Your task to perform on an android device: Search for Italian restaurants on Maps Image 0: 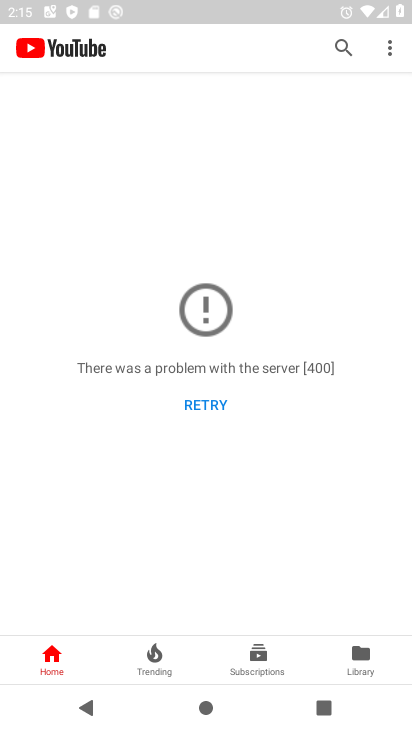
Step 0: press home button
Your task to perform on an android device: Search for Italian restaurants on Maps Image 1: 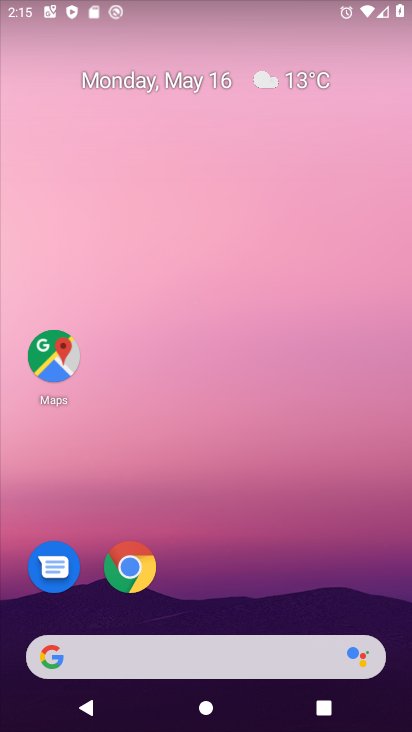
Step 1: click (36, 362)
Your task to perform on an android device: Search for Italian restaurants on Maps Image 2: 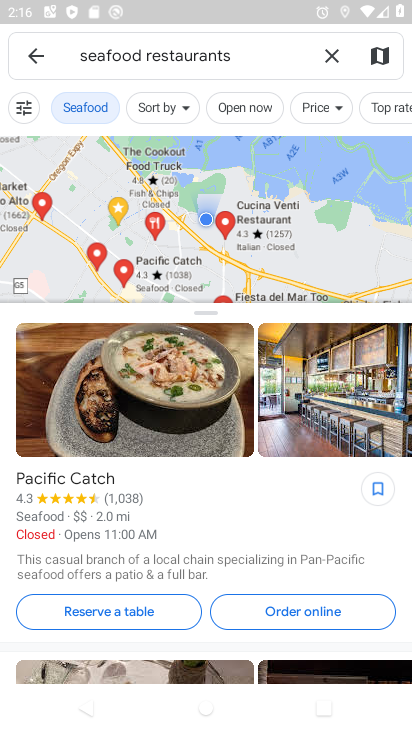
Step 2: click (326, 56)
Your task to perform on an android device: Search for Italian restaurants on Maps Image 3: 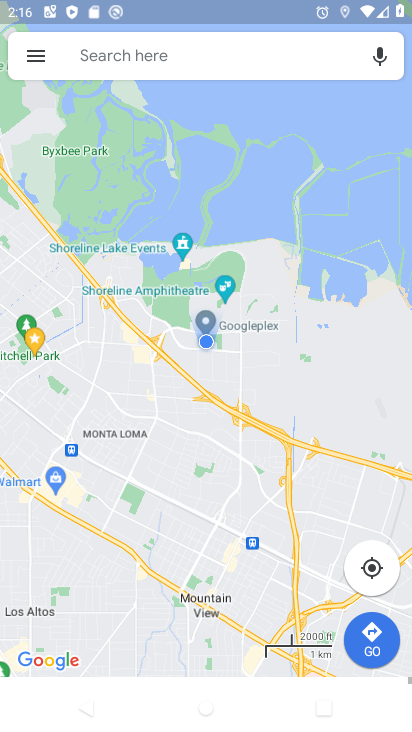
Step 3: click (151, 44)
Your task to perform on an android device: Search for Italian restaurants on Maps Image 4: 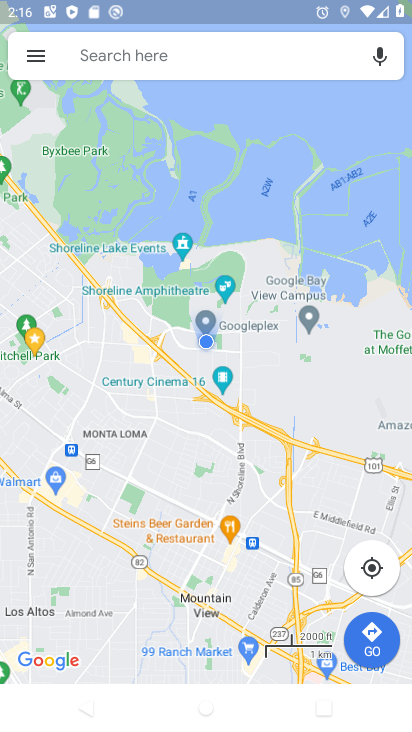
Step 4: click (151, 44)
Your task to perform on an android device: Search for Italian restaurants on Maps Image 5: 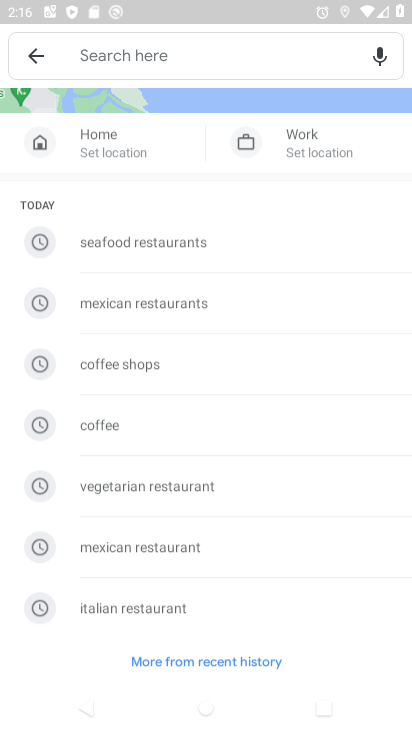
Step 5: click (151, 44)
Your task to perform on an android device: Search for Italian restaurants on Maps Image 6: 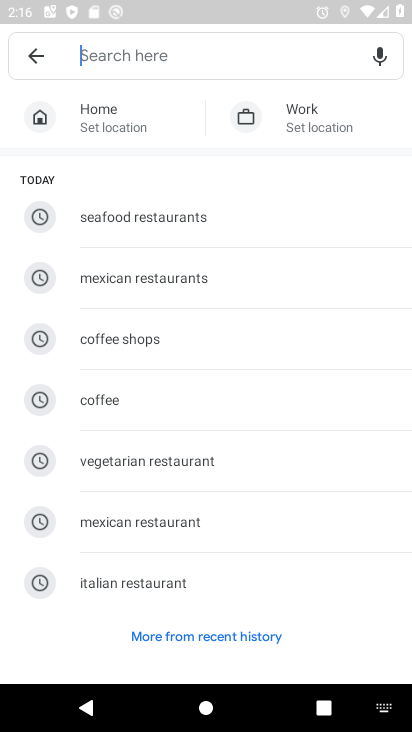
Step 6: click (151, 44)
Your task to perform on an android device: Search for Italian restaurants on Maps Image 7: 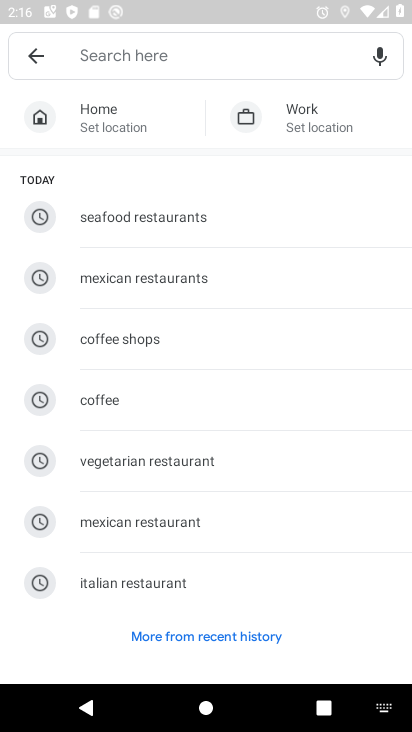
Step 7: click (151, 44)
Your task to perform on an android device: Search for Italian restaurants on Maps Image 8: 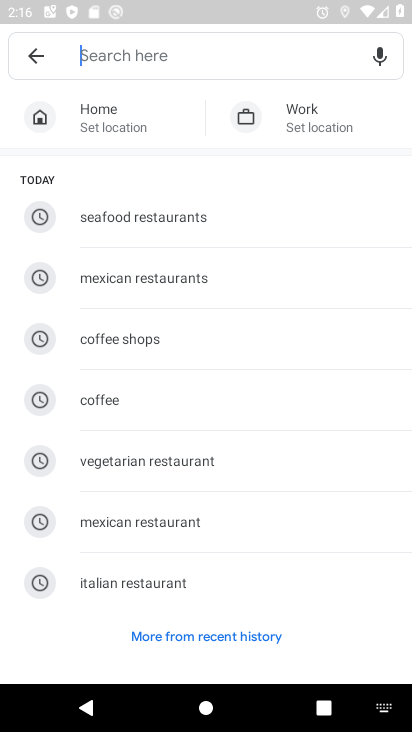
Step 8: type " Italian restaurants"
Your task to perform on an android device: Search for Italian restaurants on Maps Image 9: 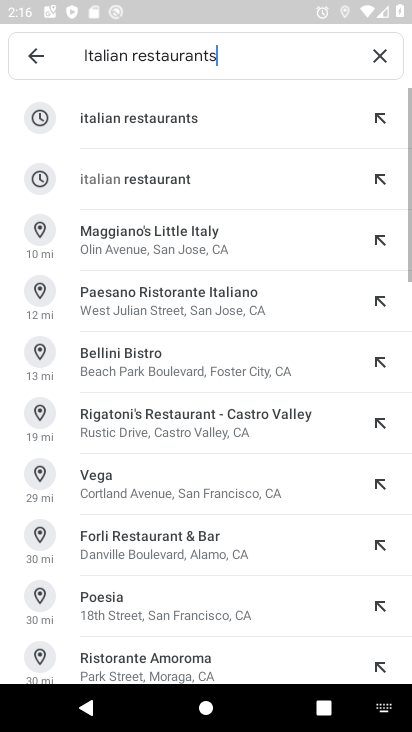
Step 9: click (300, 104)
Your task to perform on an android device: Search for Italian restaurants on Maps Image 10: 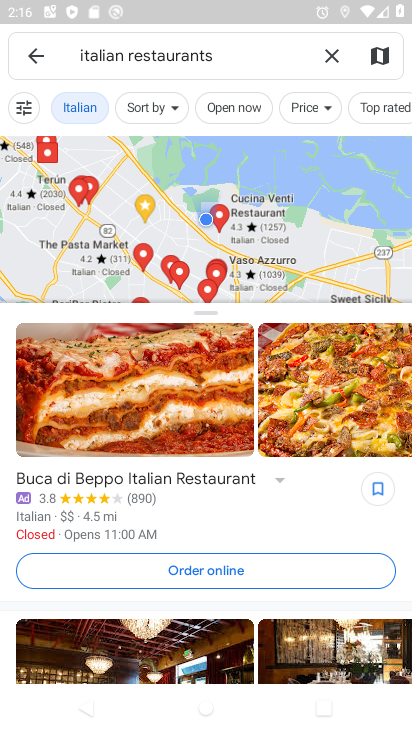
Step 10: task complete